Your task to perform on an android device: Search for 4k TVs on Best Buy. Image 0: 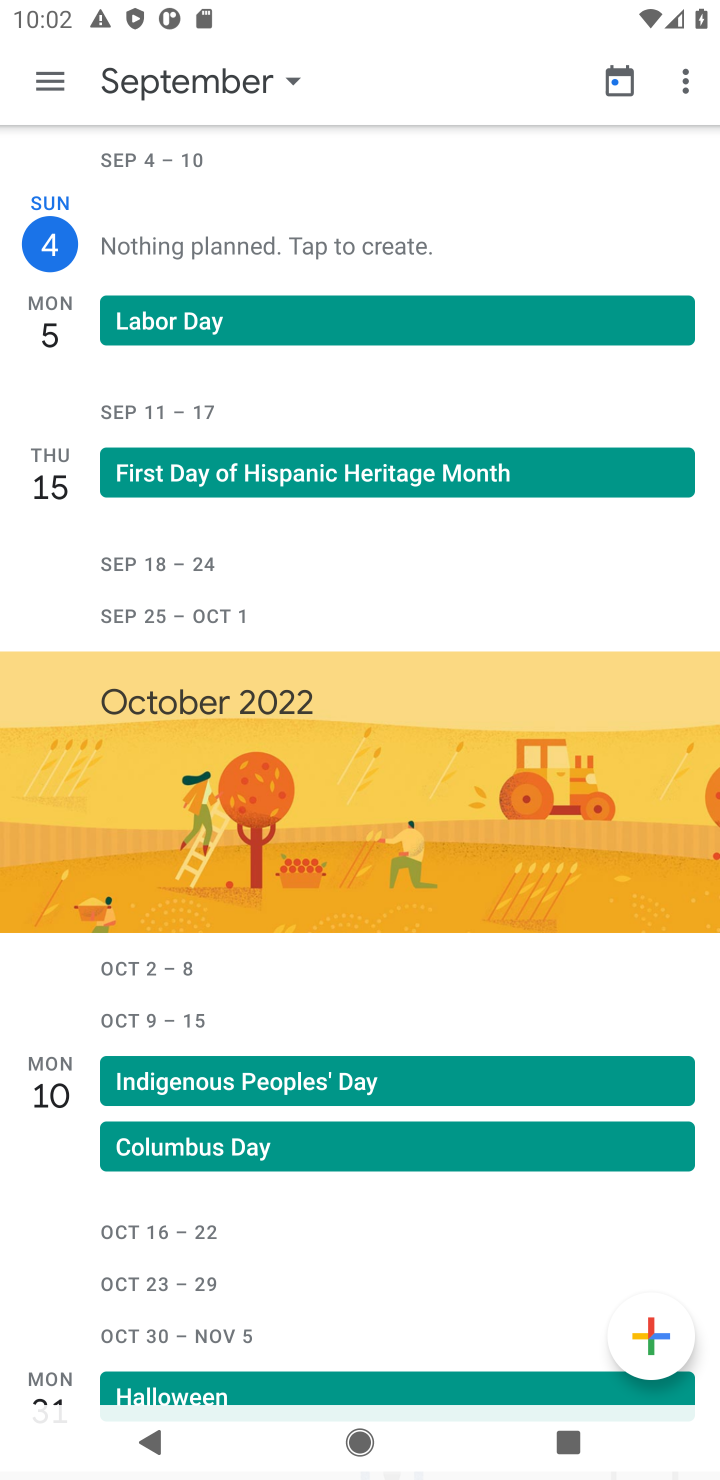
Step 0: press home button
Your task to perform on an android device: Search for 4k TVs on Best Buy. Image 1: 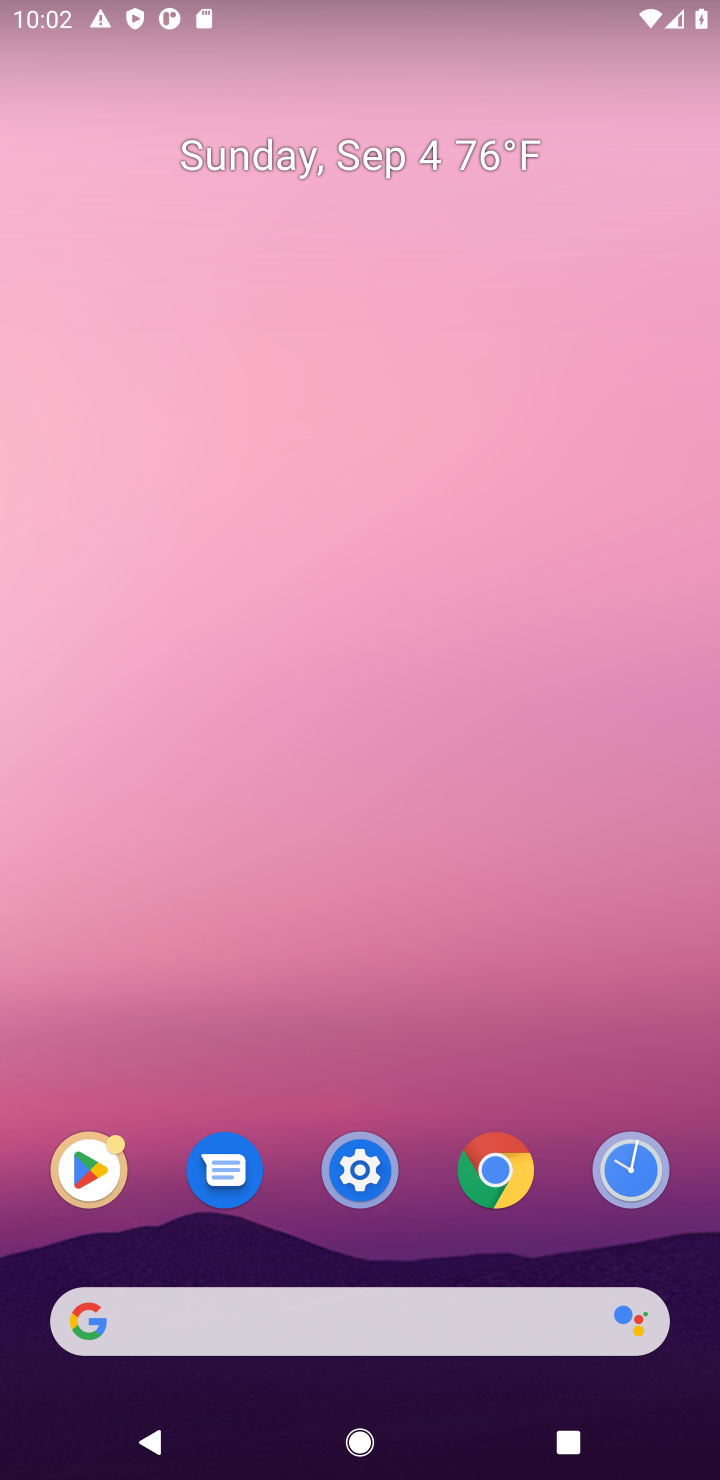
Step 1: click (404, 1312)
Your task to perform on an android device: Search for 4k TVs on Best Buy. Image 2: 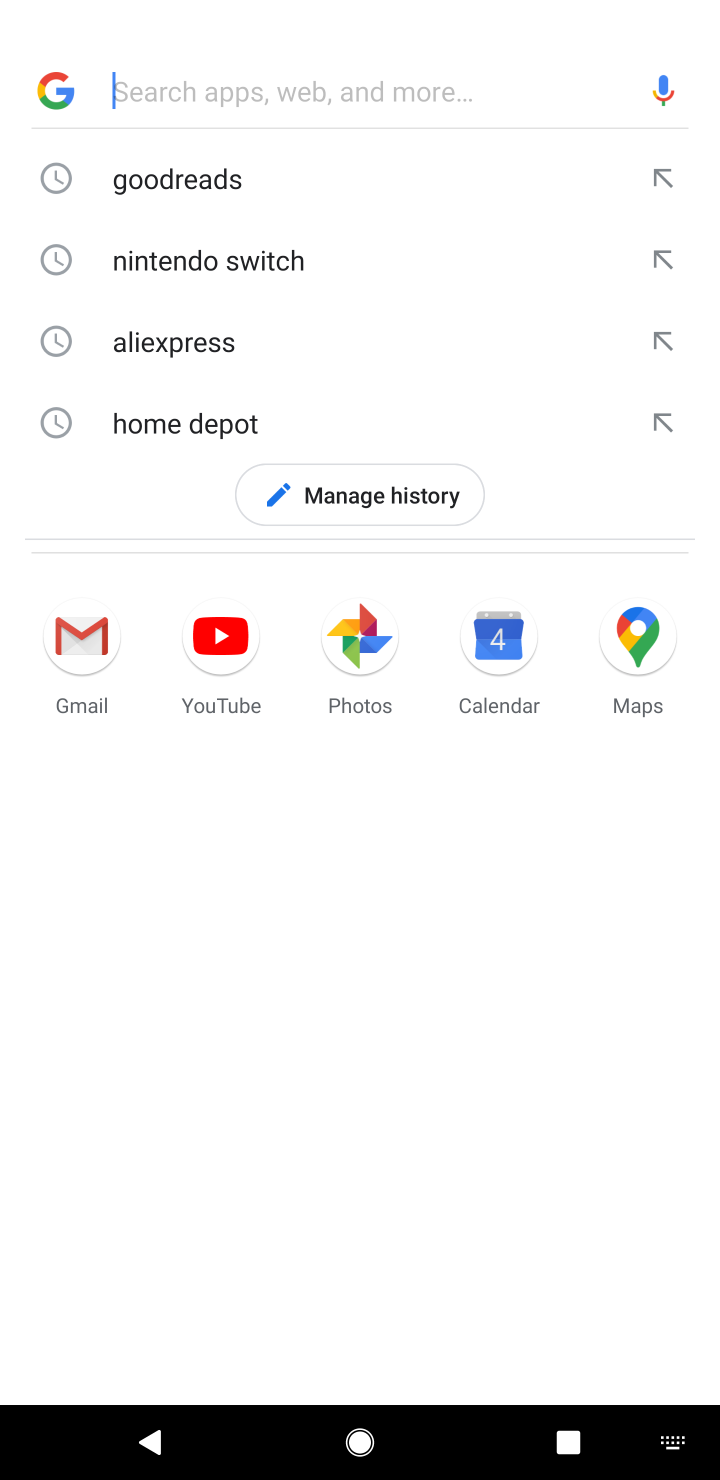
Step 2: type "Best Buy"
Your task to perform on an android device: Search for 4k TVs on Best Buy. Image 3: 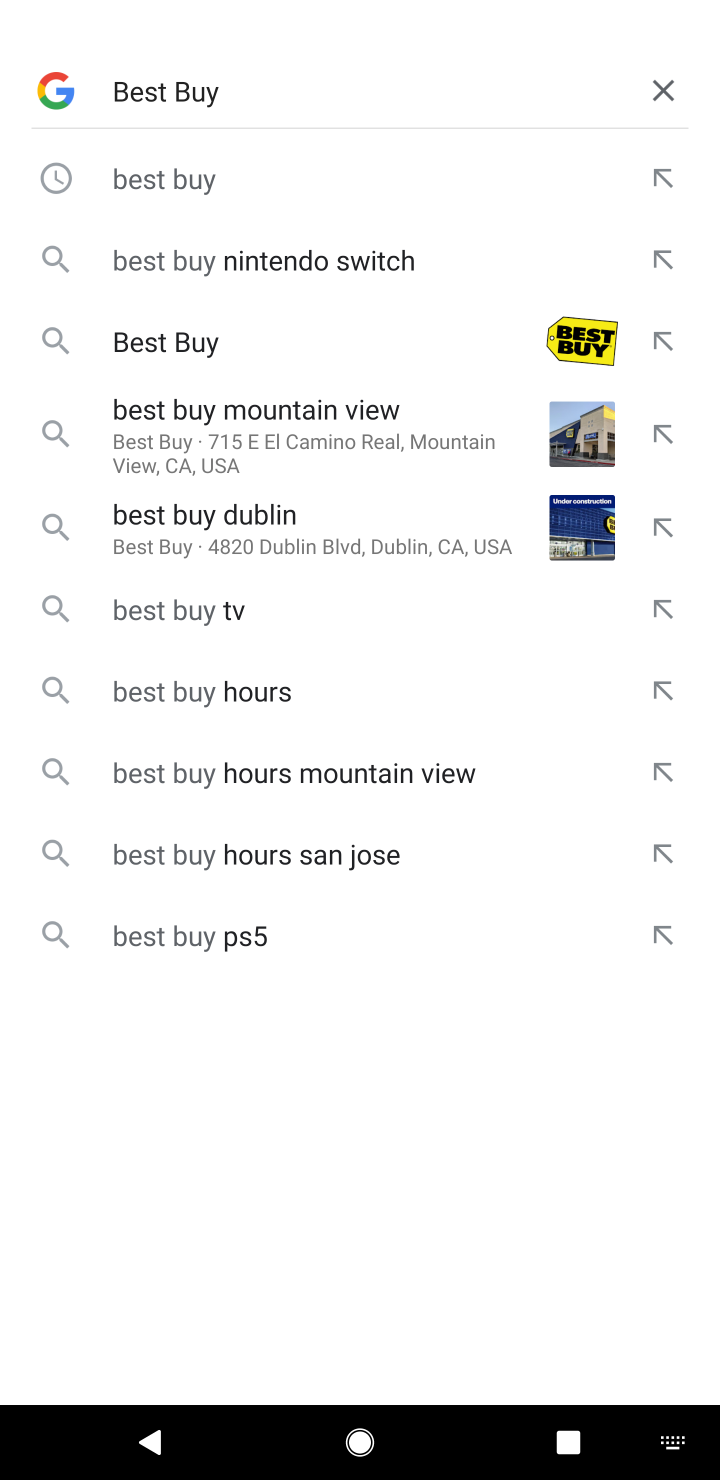
Step 3: click (228, 194)
Your task to perform on an android device: Search for 4k TVs on Best Buy. Image 4: 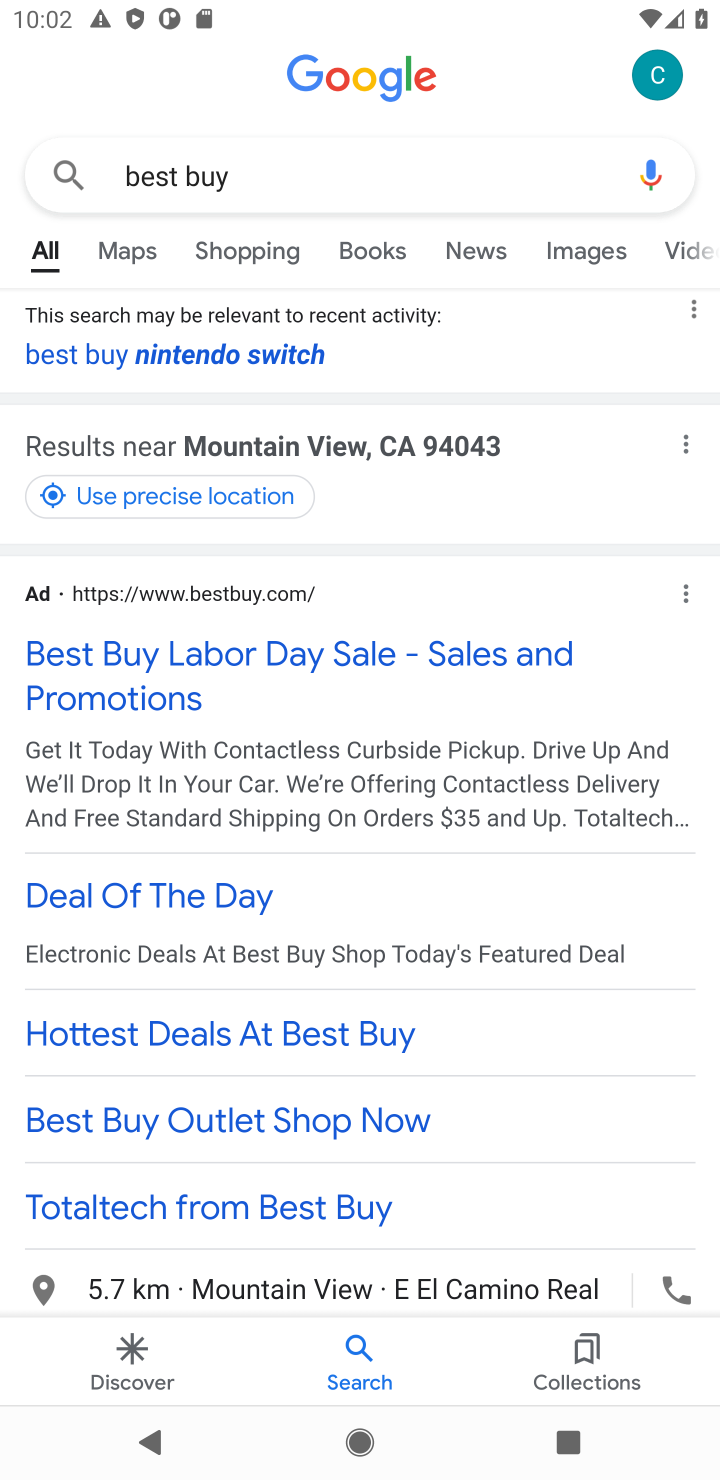
Step 4: drag from (392, 435) to (467, 316)
Your task to perform on an android device: Search for 4k TVs on Best Buy. Image 5: 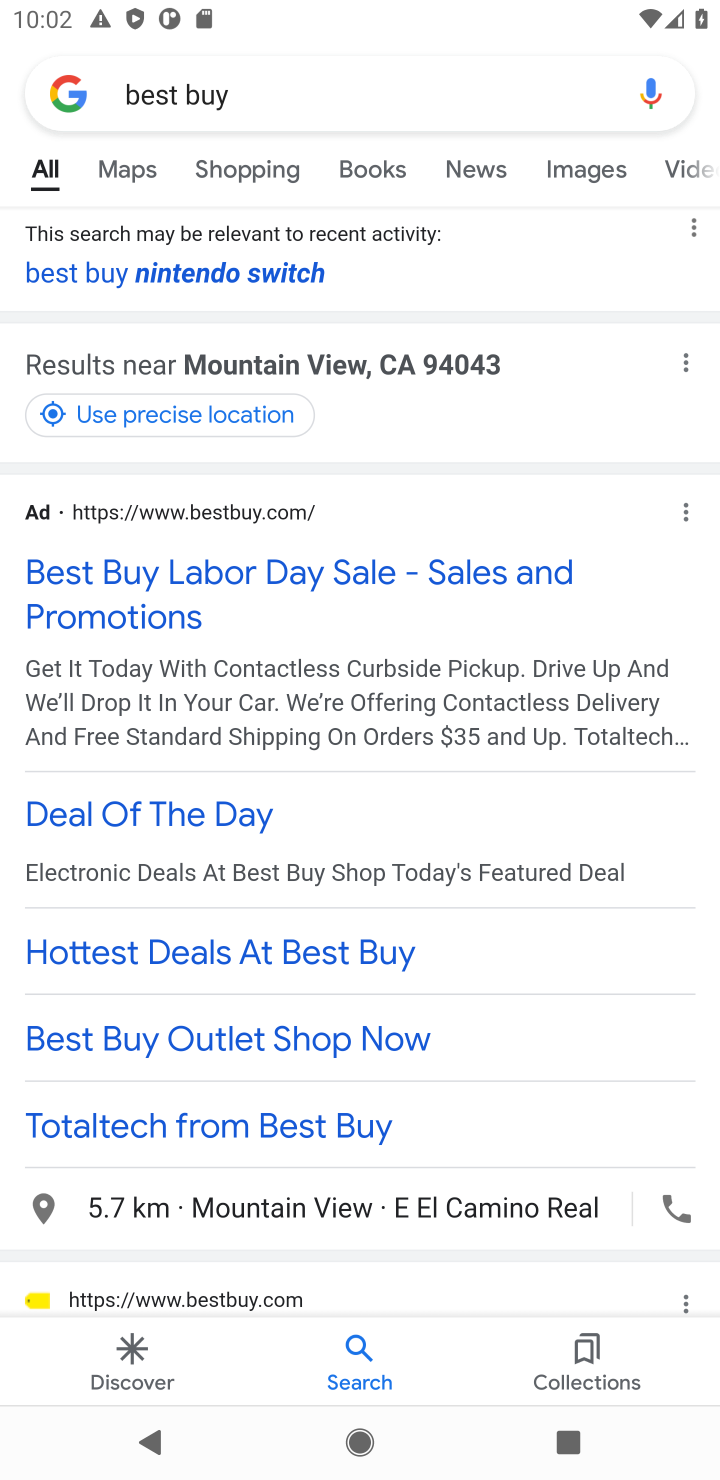
Step 5: drag from (458, 627) to (557, 408)
Your task to perform on an android device: Search for 4k TVs on Best Buy. Image 6: 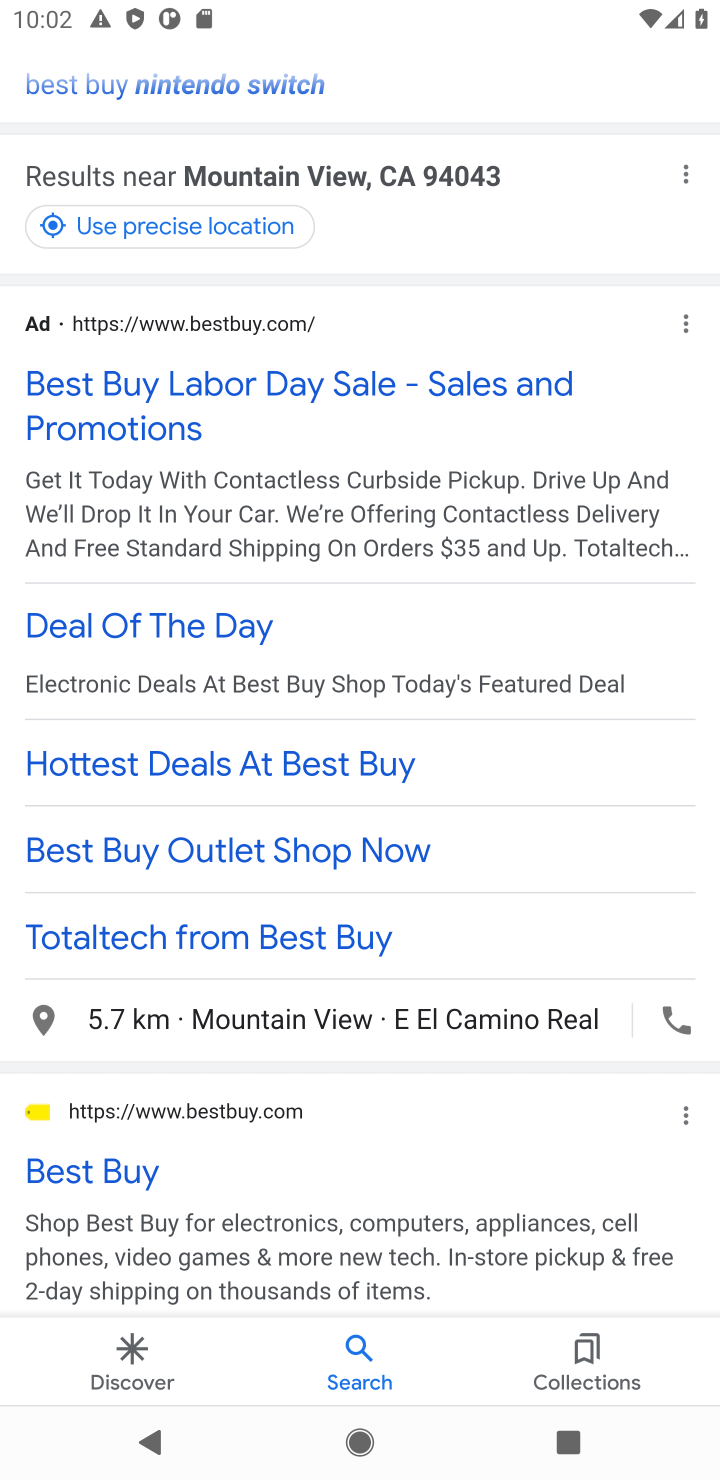
Step 6: drag from (488, 819) to (503, 225)
Your task to perform on an android device: Search for 4k TVs on Best Buy. Image 7: 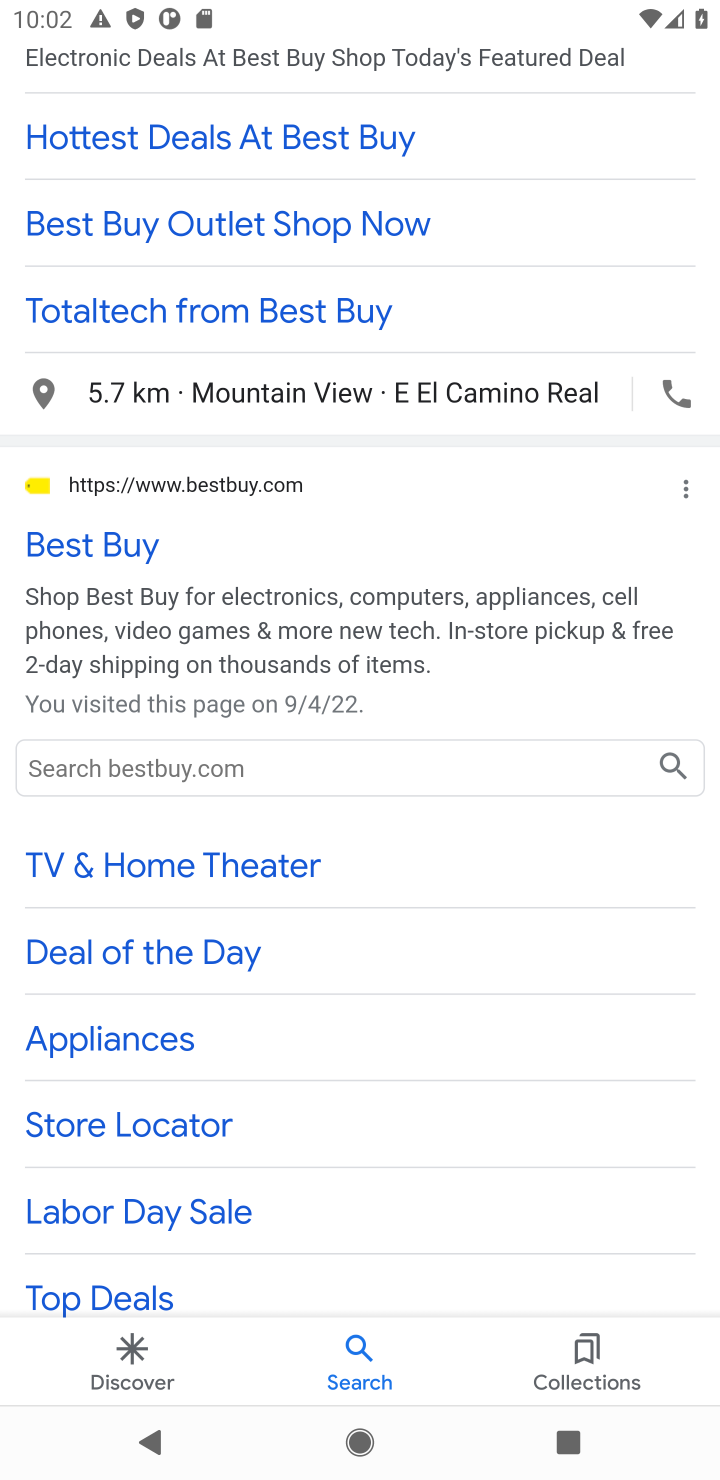
Step 7: drag from (334, 944) to (366, 330)
Your task to perform on an android device: Search for 4k TVs on Best Buy. Image 8: 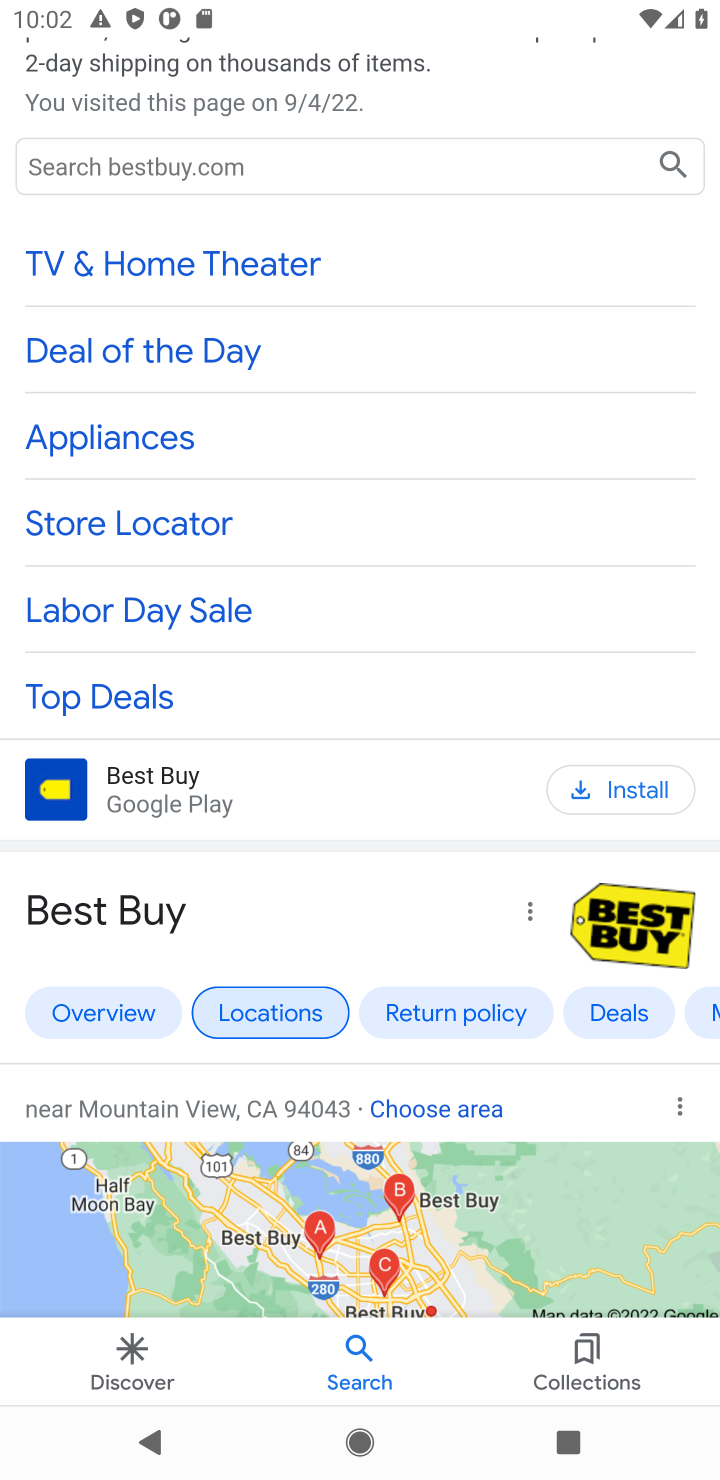
Step 8: drag from (380, 806) to (333, 892)
Your task to perform on an android device: Search for 4k TVs on Best Buy. Image 9: 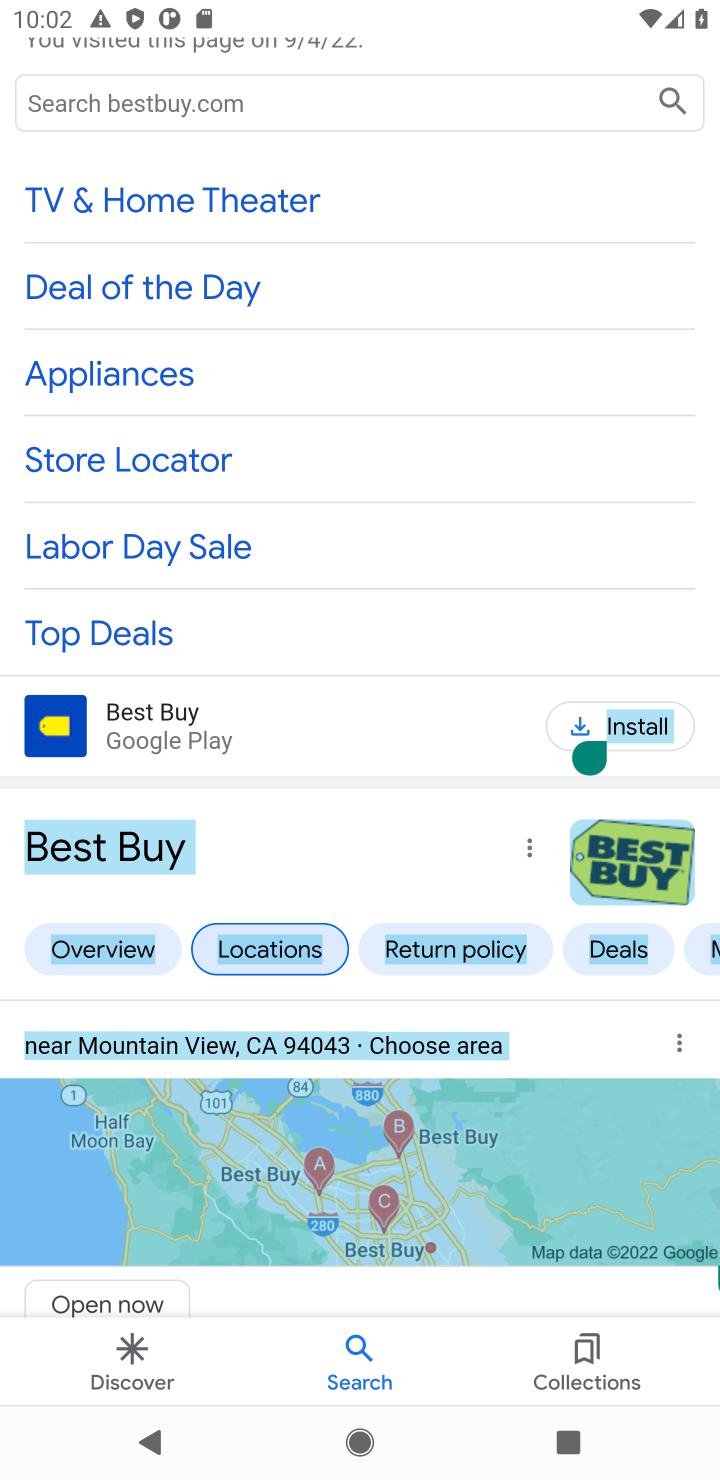
Step 9: drag from (346, 526) to (415, 976)
Your task to perform on an android device: Search for 4k TVs on Best Buy. Image 10: 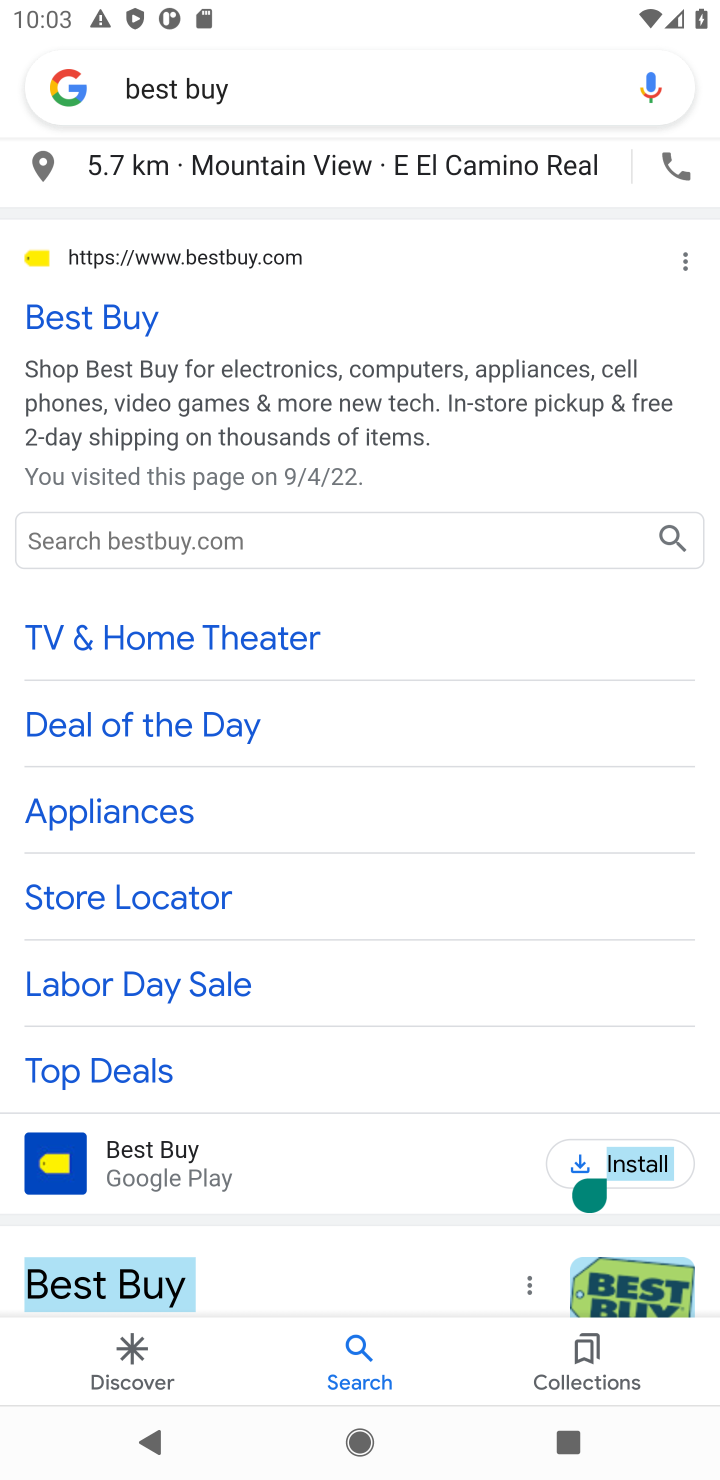
Step 10: click (120, 316)
Your task to perform on an android device: Search for 4k TVs on Best Buy. Image 11: 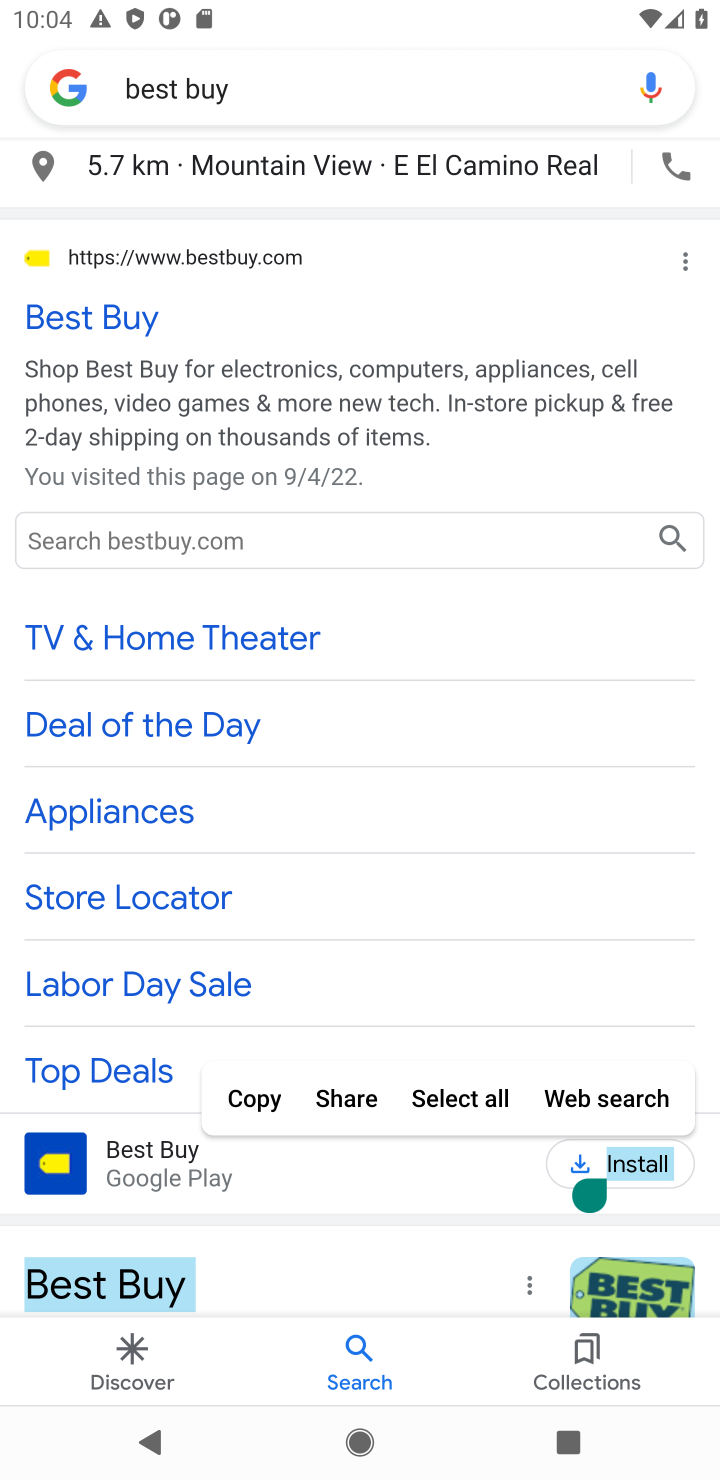
Step 11: click (120, 316)
Your task to perform on an android device: Search for 4k TVs on Best Buy. Image 12: 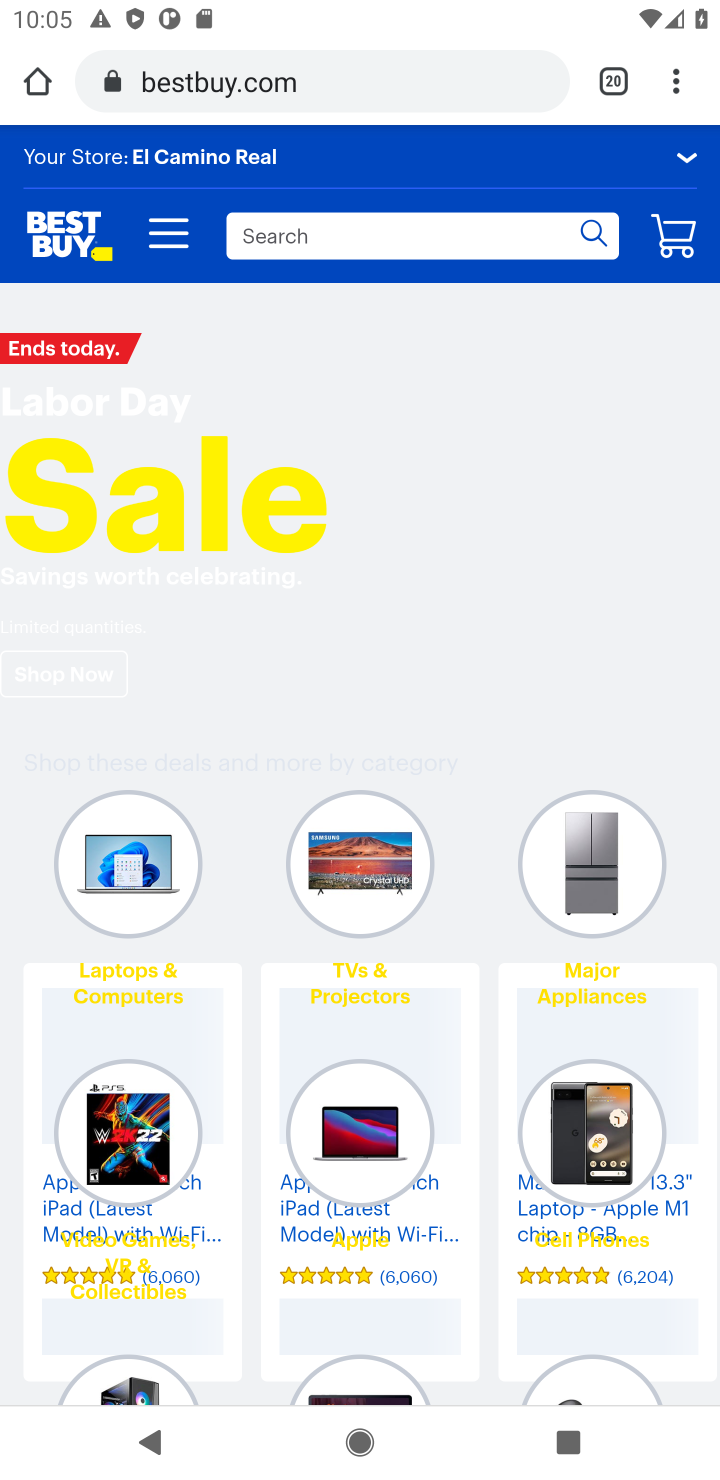
Step 12: click (389, 225)
Your task to perform on an android device: Search for 4k TVs on Best Buy. Image 13: 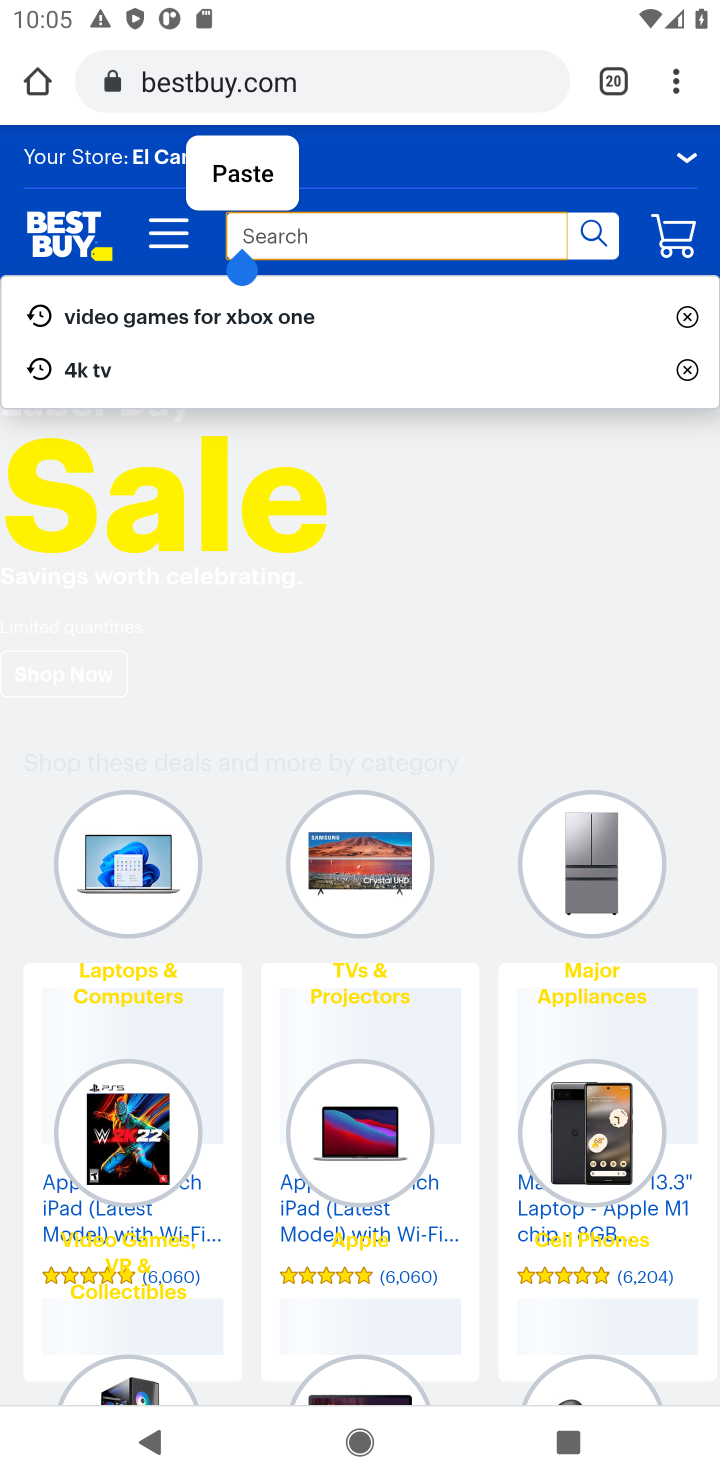
Step 13: type "4k TVs"
Your task to perform on an android device: Search for 4k TVs on Best Buy. Image 14: 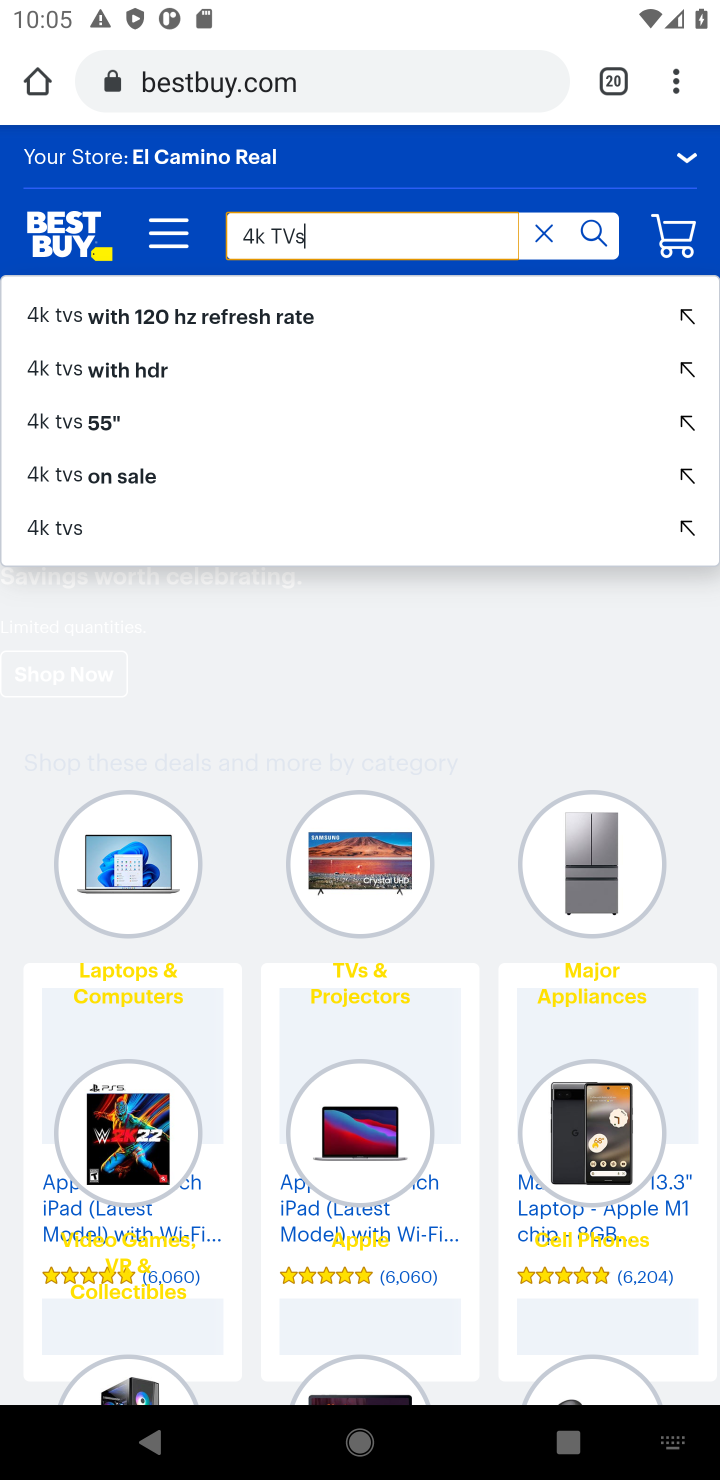
Step 14: click (69, 534)
Your task to perform on an android device: Search for 4k TVs on Best Buy. Image 15: 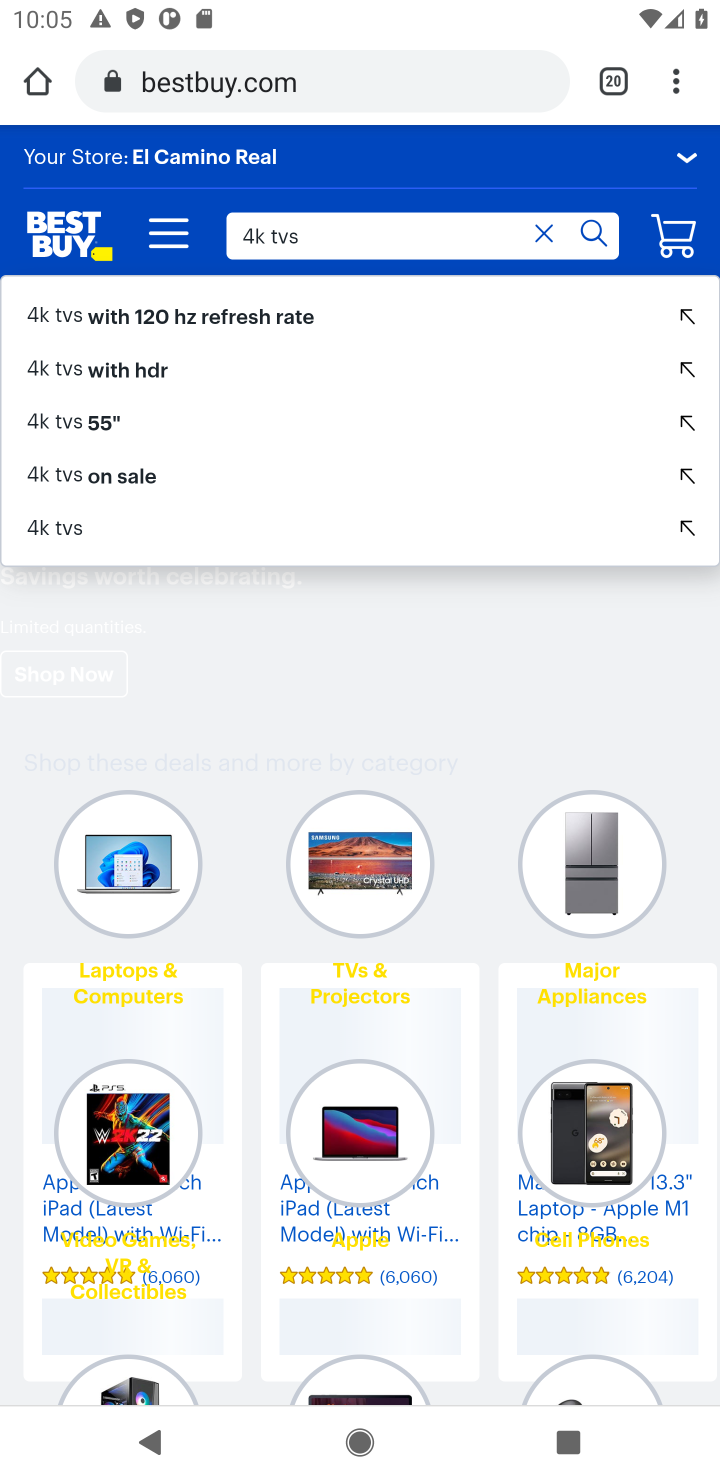
Step 15: click (99, 537)
Your task to perform on an android device: Search for 4k TVs on Best Buy. Image 16: 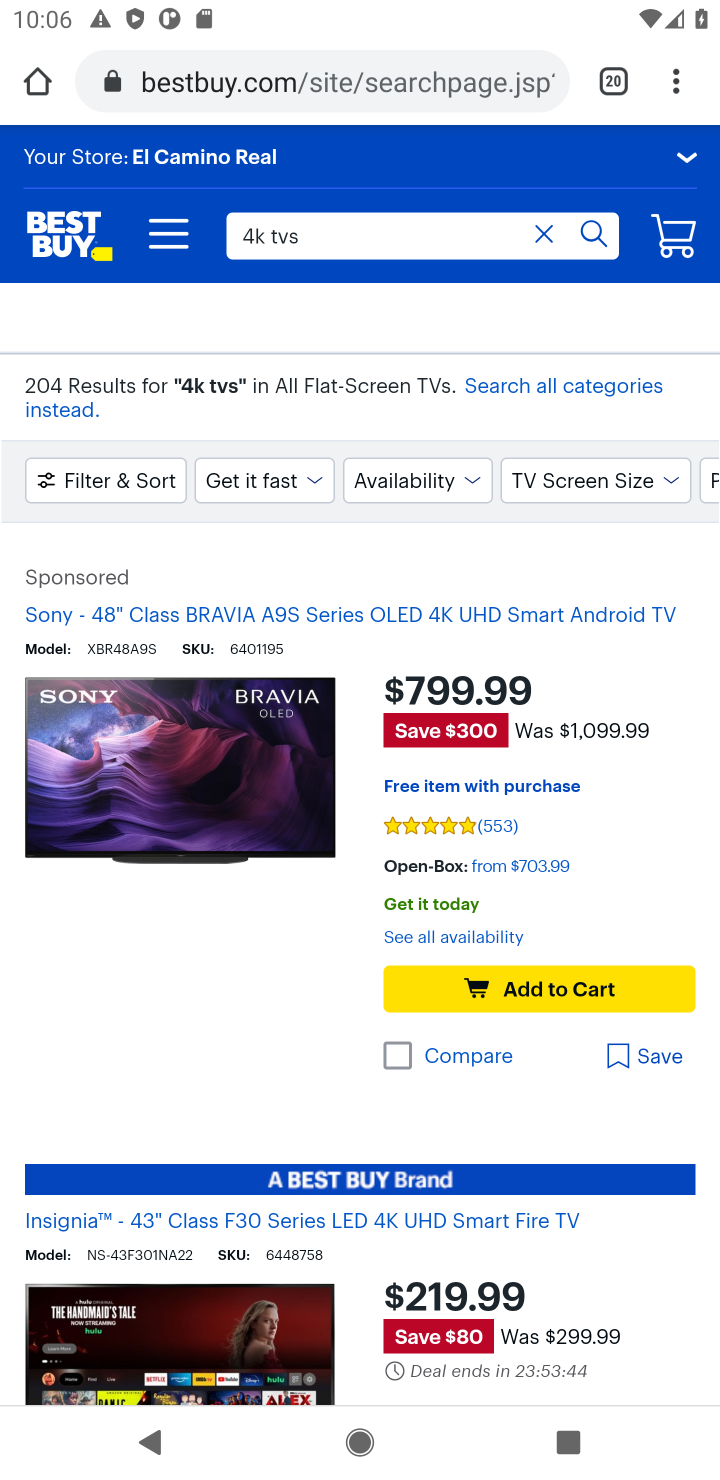
Step 16: task complete